Your task to perform on an android device: Go to Google maps Image 0: 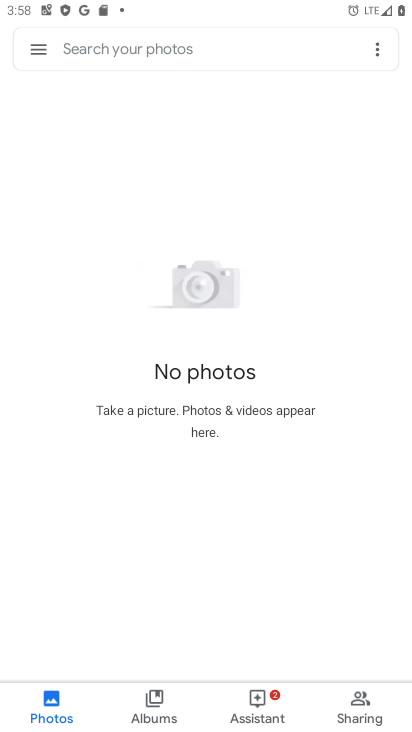
Step 0: press home button
Your task to perform on an android device: Go to Google maps Image 1: 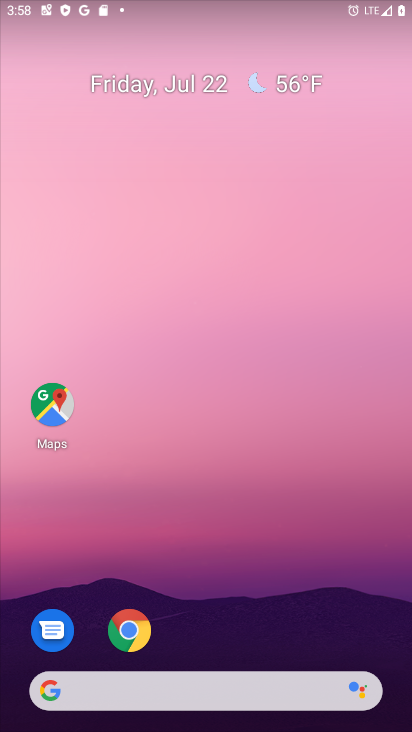
Step 1: click (48, 420)
Your task to perform on an android device: Go to Google maps Image 2: 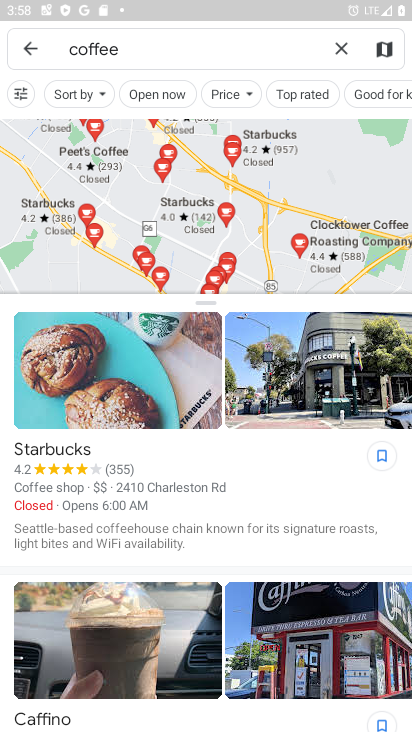
Step 2: task complete